Your task to perform on an android device: Turn off the flashlight Image 0: 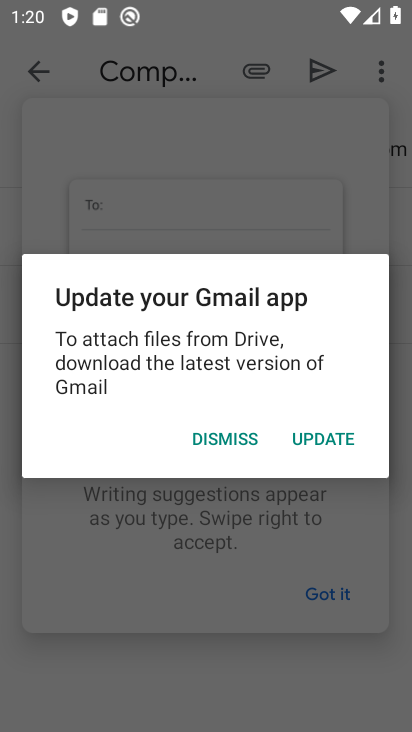
Step 0: press home button
Your task to perform on an android device: Turn off the flashlight Image 1: 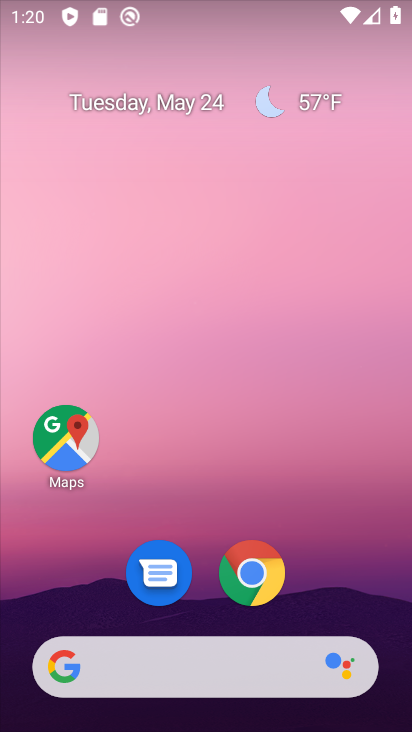
Step 1: task complete